Your task to perform on an android device: show emergency info Image 0: 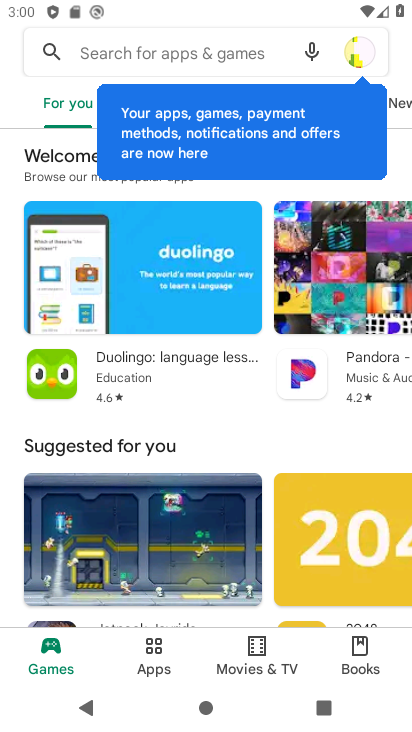
Step 0: press home button
Your task to perform on an android device: show emergency info Image 1: 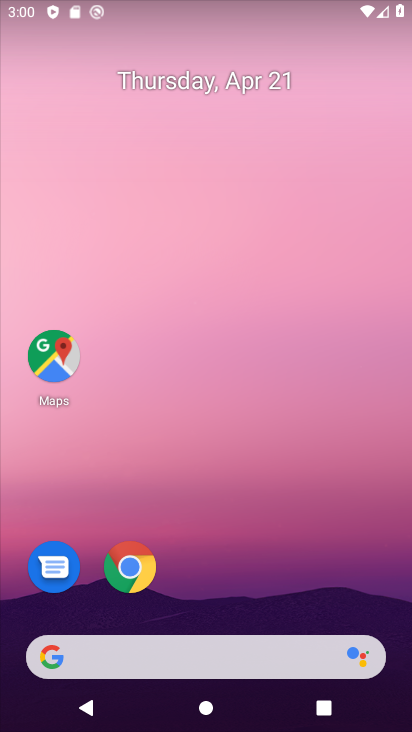
Step 1: drag from (266, 623) to (271, 100)
Your task to perform on an android device: show emergency info Image 2: 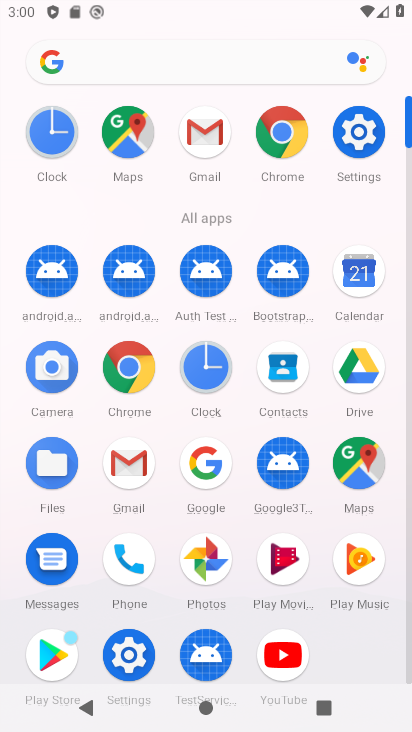
Step 2: click (362, 148)
Your task to perform on an android device: show emergency info Image 3: 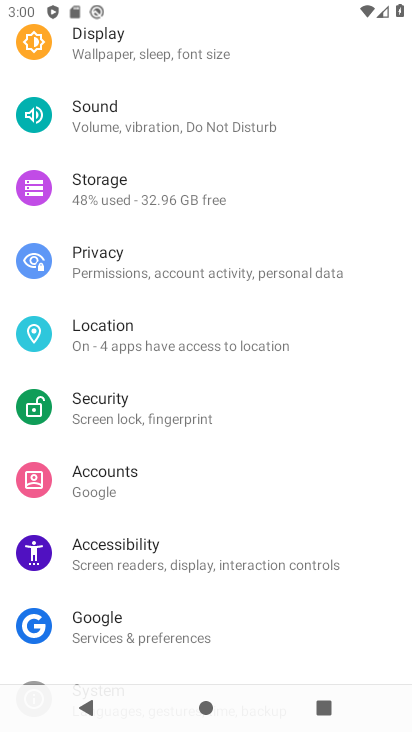
Step 3: drag from (150, 599) to (175, 47)
Your task to perform on an android device: show emergency info Image 4: 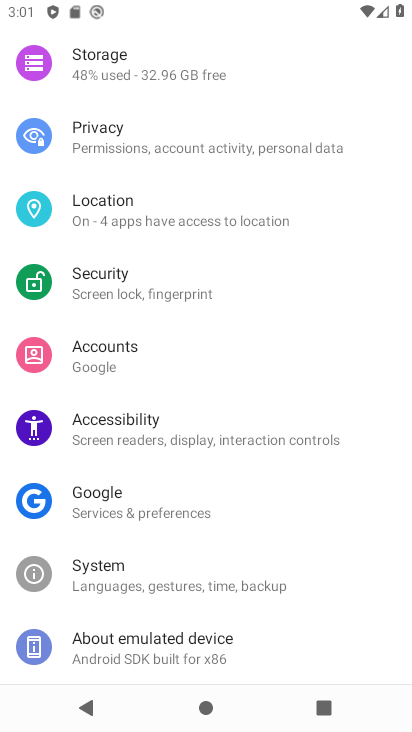
Step 4: click (90, 639)
Your task to perform on an android device: show emergency info Image 5: 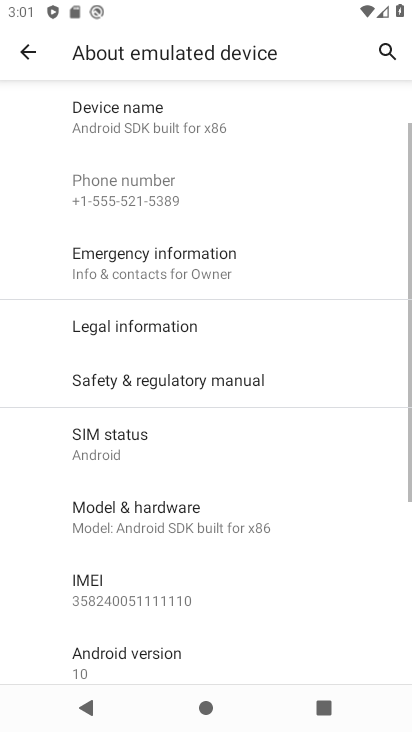
Step 5: drag from (90, 639) to (137, 591)
Your task to perform on an android device: show emergency info Image 6: 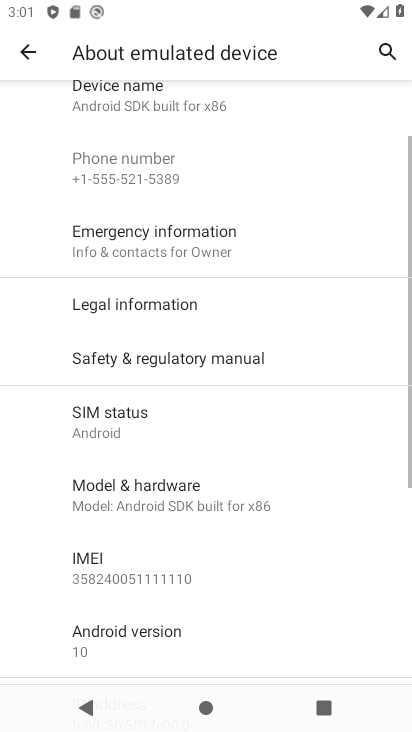
Step 6: click (283, 249)
Your task to perform on an android device: show emergency info Image 7: 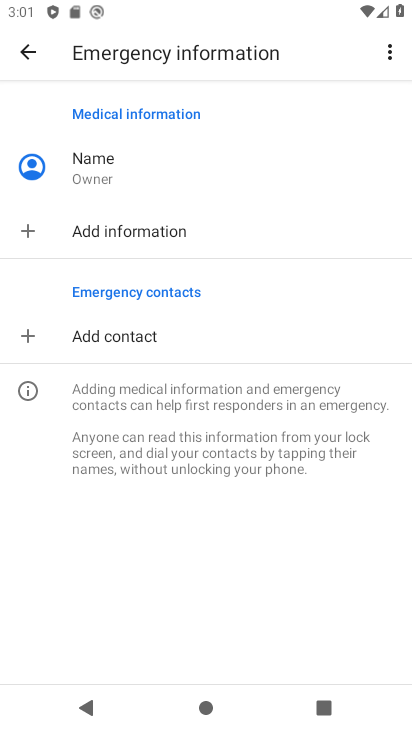
Step 7: task complete